Your task to perform on an android device: turn off translation in the chrome app Image 0: 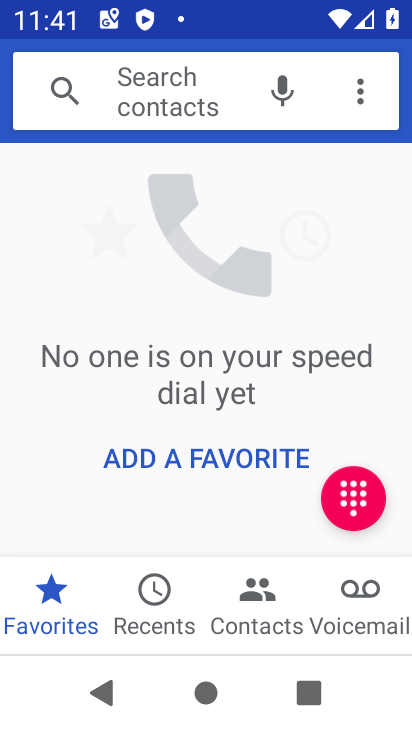
Step 0: press home button
Your task to perform on an android device: turn off translation in the chrome app Image 1: 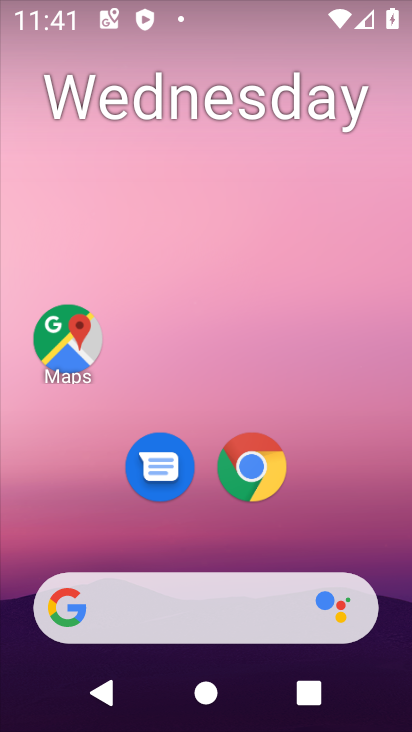
Step 1: click (252, 471)
Your task to perform on an android device: turn off translation in the chrome app Image 2: 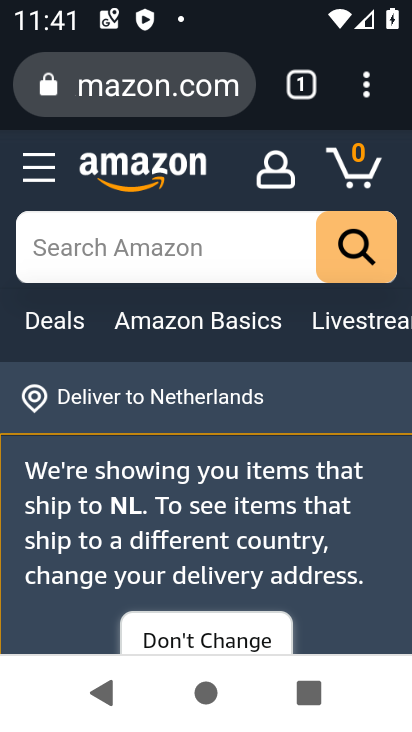
Step 2: drag from (367, 101) to (248, 520)
Your task to perform on an android device: turn off translation in the chrome app Image 3: 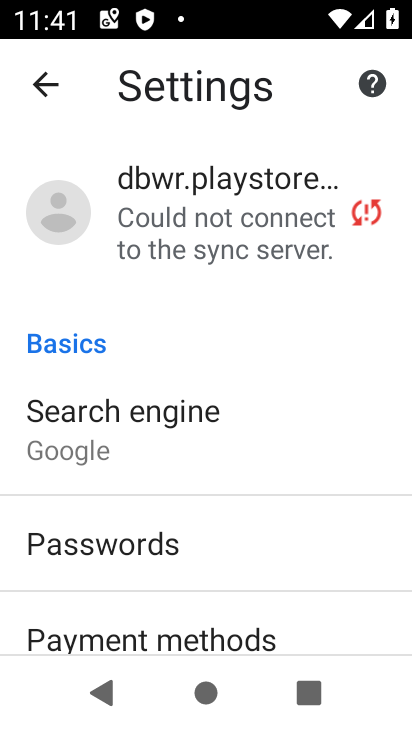
Step 3: drag from (236, 591) to (329, 164)
Your task to perform on an android device: turn off translation in the chrome app Image 4: 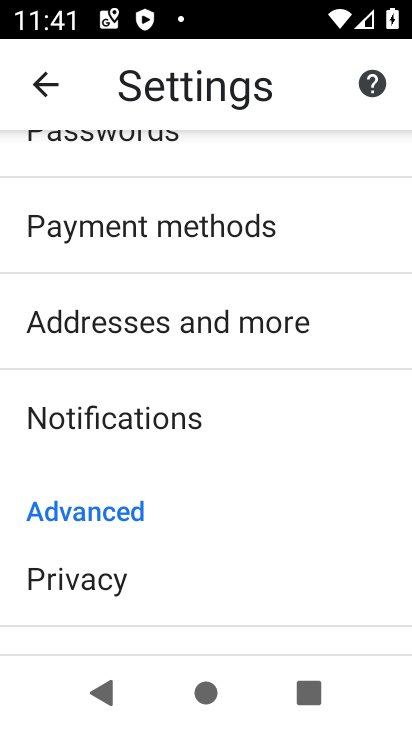
Step 4: drag from (212, 616) to (320, 237)
Your task to perform on an android device: turn off translation in the chrome app Image 5: 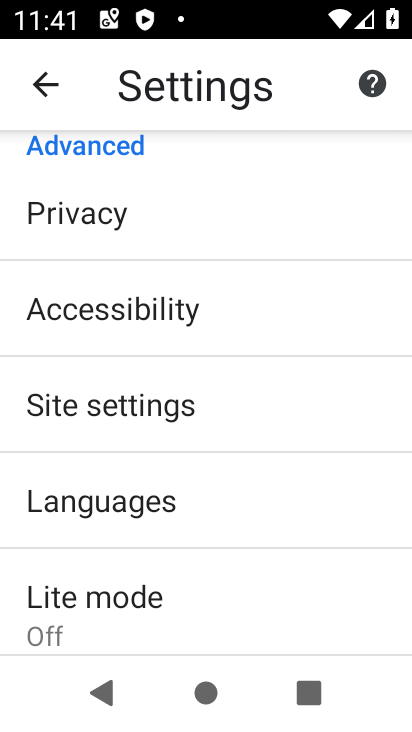
Step 5: click (170, 506)
Your task to perform on an android device: turn off translation in the chrome app Image 6: 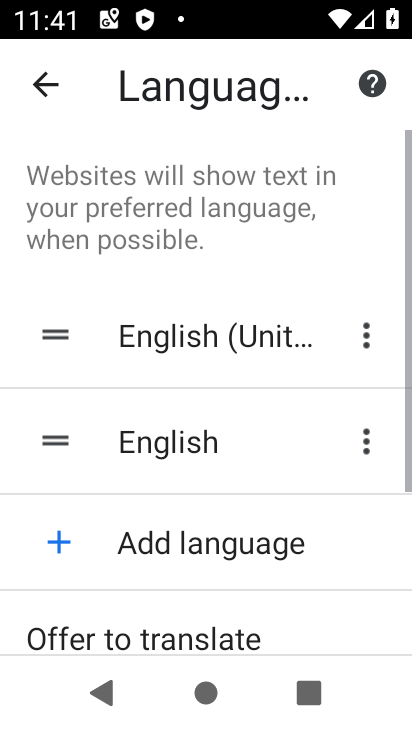
Step 6: drag from (233, 624) to (312, 281)
Your task to perform on an android device: turn off translation in the chrome app Image 7: 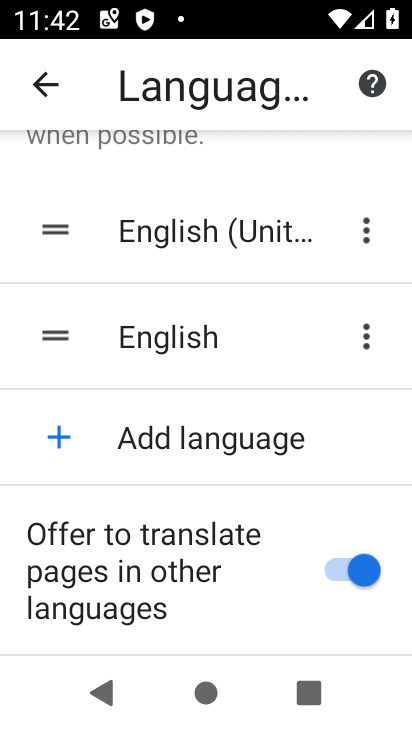
Step 7: click (331, 571)
Your task to perform on an android device: turn off translation in the chrome app Image 8: 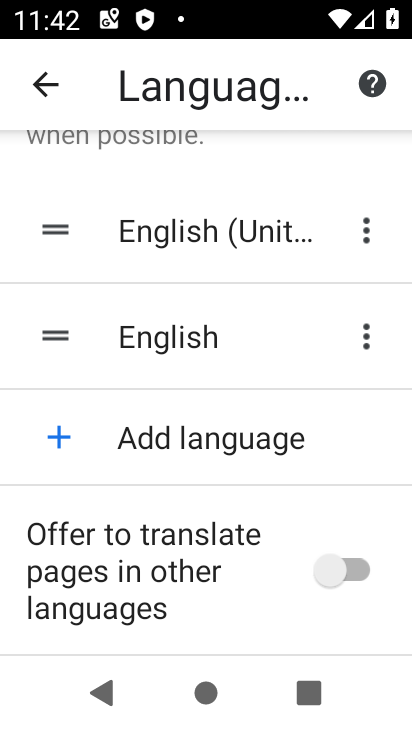
Step 8: task complete